Your task to perform on an android device: toggle translation in the chrome app Image 0: 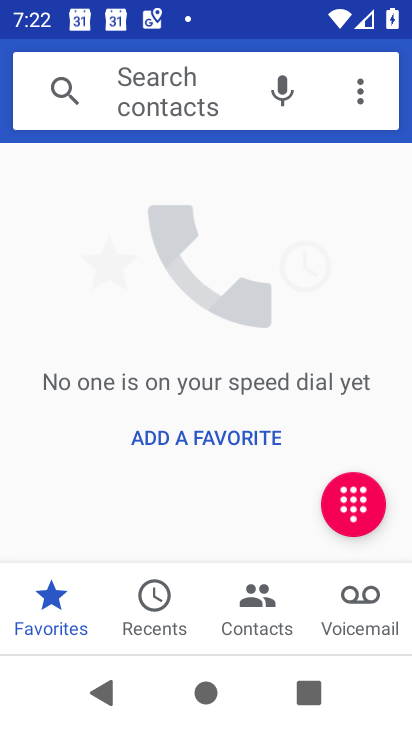
Step 0: press home button
Your task to perform on an android device: toggle translation in the chrome app Image 1: 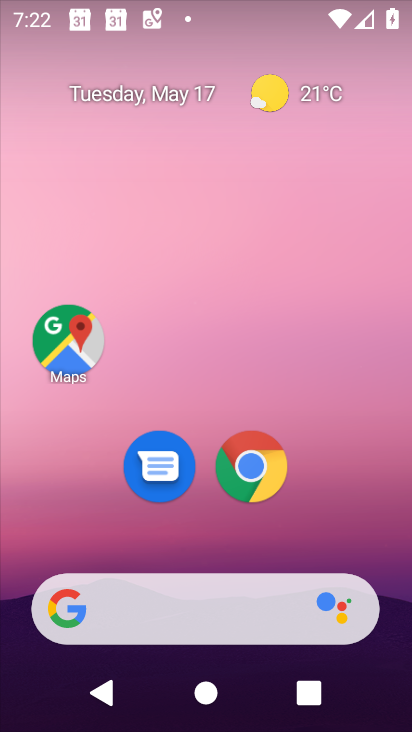
Step 1: drag from (192, 620) to (311, 183)
Your task to perform on an android device: toggle translation in the chrome app Image 2: 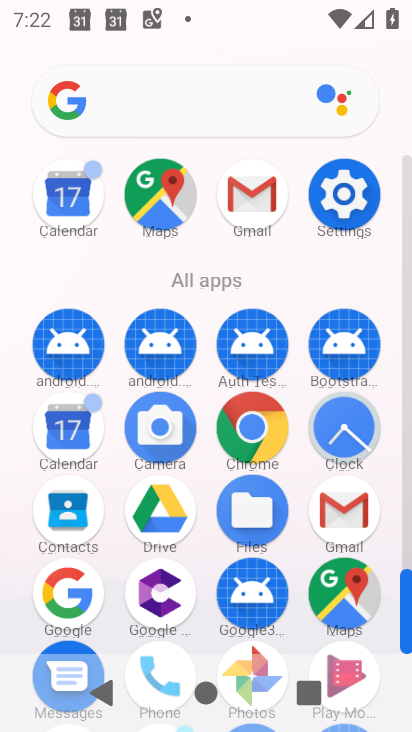
Step 2: click (247, 424)
Your task to perform on an android device: toggle translation in the chrome app Image 3: 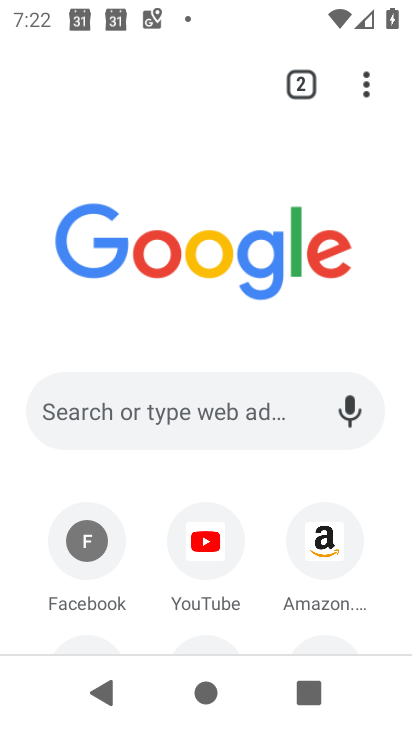
Step 3: drag from (366, 89) to (240, 512)
Your task to perform on an android device: toggle translation in the chrome app Image 4: 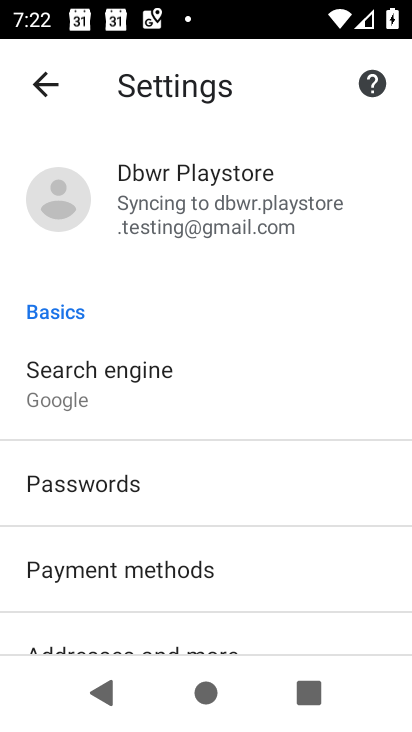
Step 4: drag from (239, 613) to (357, 374)
Your task to perform on an android device: toggle translation in the chrome app Image 5: 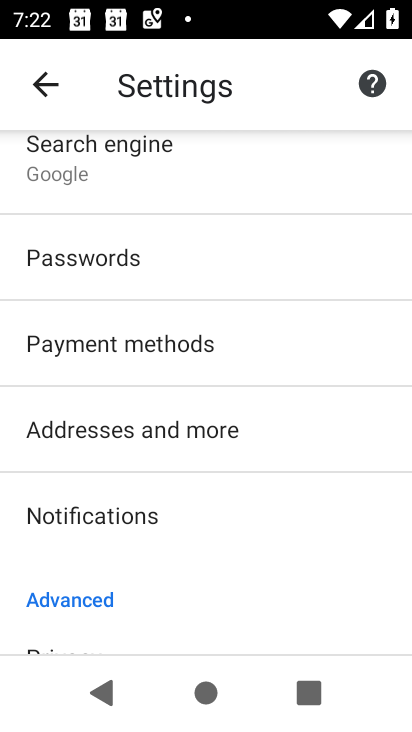
Step 5: drag from (266, 590) to (385, 167)
Your task to perform on an android device: toggle translation in the chrome app Image 6: 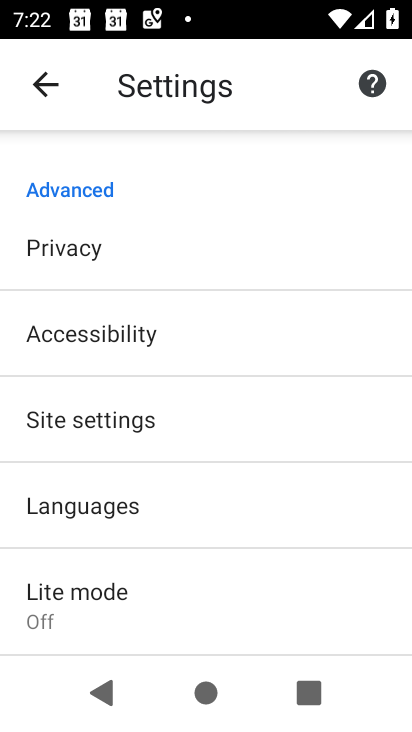
Step 6: click (138, 504)
Your task to perform on an android device: toggle translation in the chrome app Image 7: 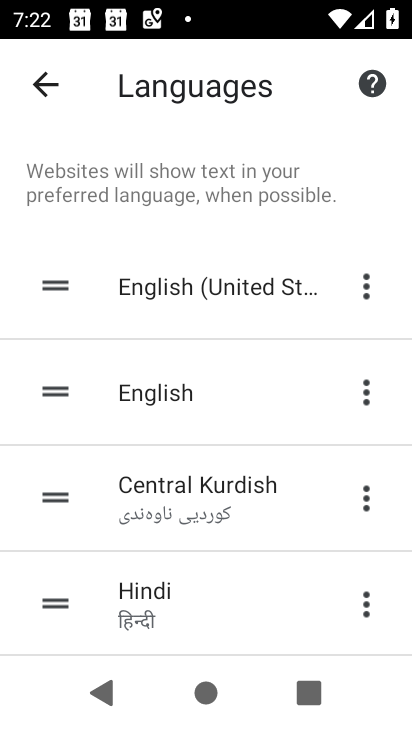
Step 7: drag from (195, 603) to (353, 160)
Your task to perform on an android device: toggle translation in the chrome app Image 8: 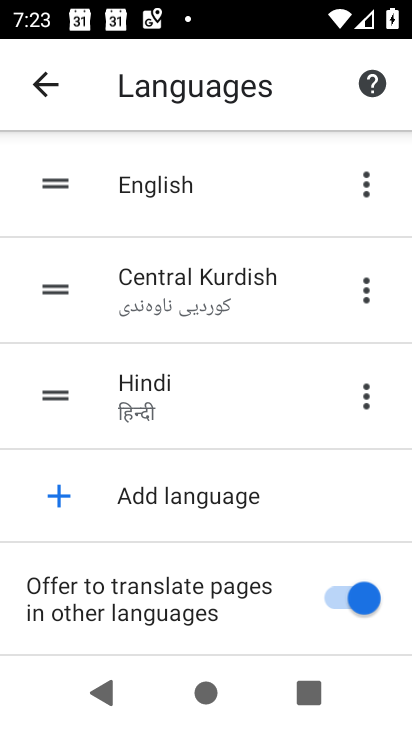
Step 8: click (336, 600)
Your task to perform on an android device: toggle translation in the chrome app Image 9: 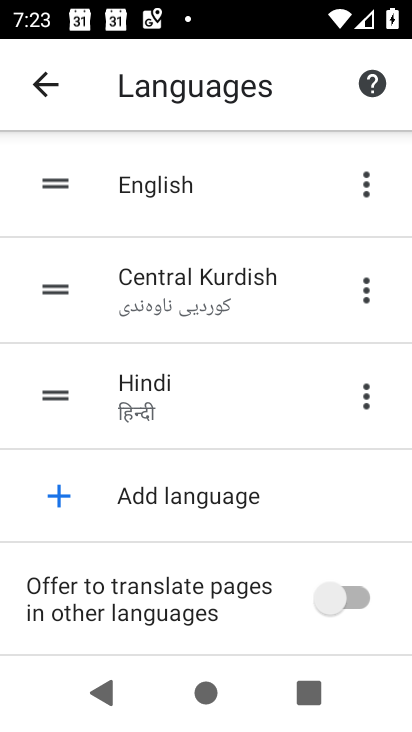
Step 9: task complete